Your task to perform on an android device: check storage Image 0: 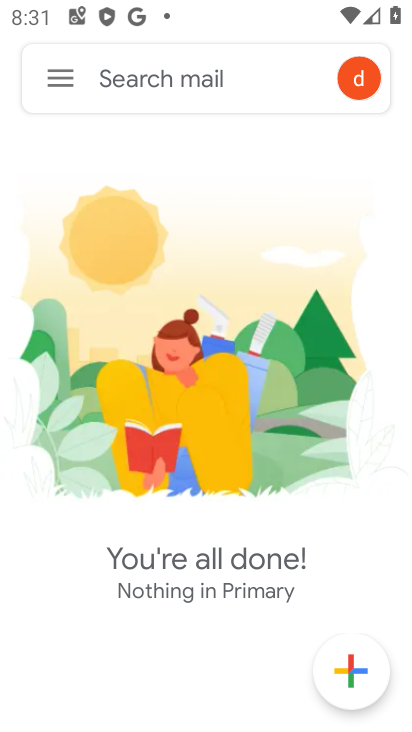
Step 0: press home button
Your task to perform on an android device: check storage Image 1: 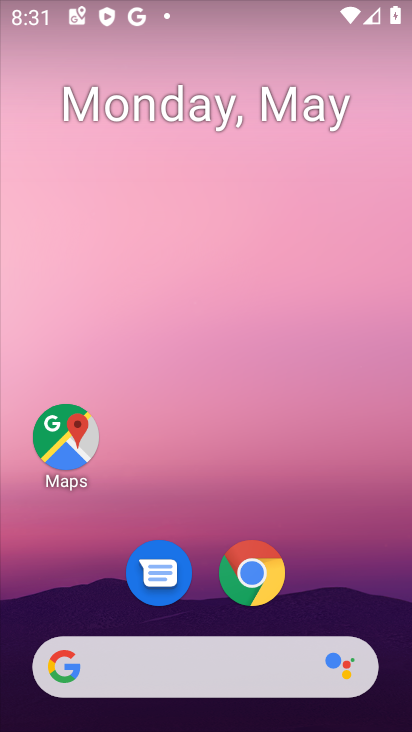
Step 1: drag from (220, 664) to (199, 87)
Your task to perform on an android device: check storage Image 2: 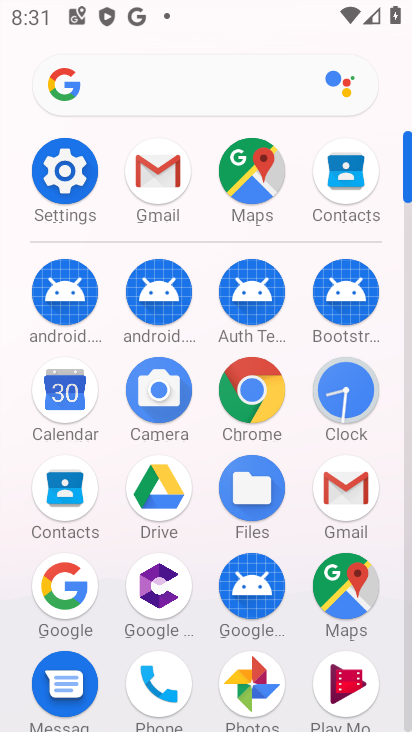
Step 2: click (74, 211)
Your task to perform on an android device: check storage Image 3: 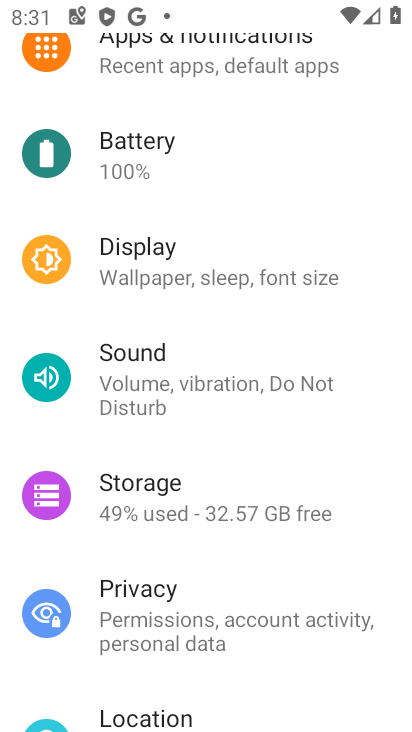
Step 3: click (139, 516)
Your task to perform on an android device: check storage Image 4: 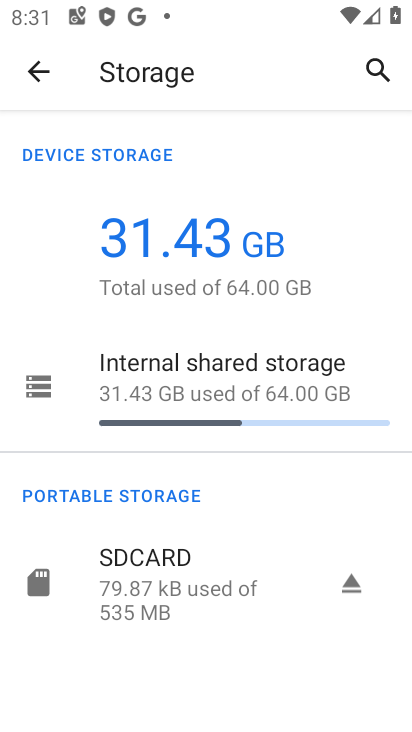
Step 4: click (259, 387)
Your task to perform on an android device: check storage Image 5: 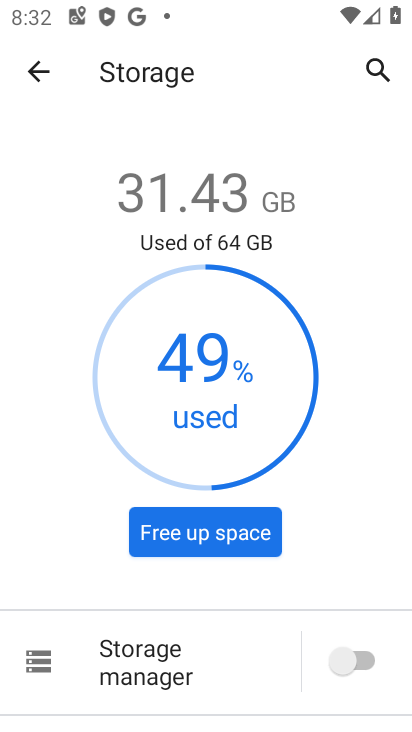
Step 5: task complete